Your task to perform on an android device: set default search engine in the chrome app Image 0: 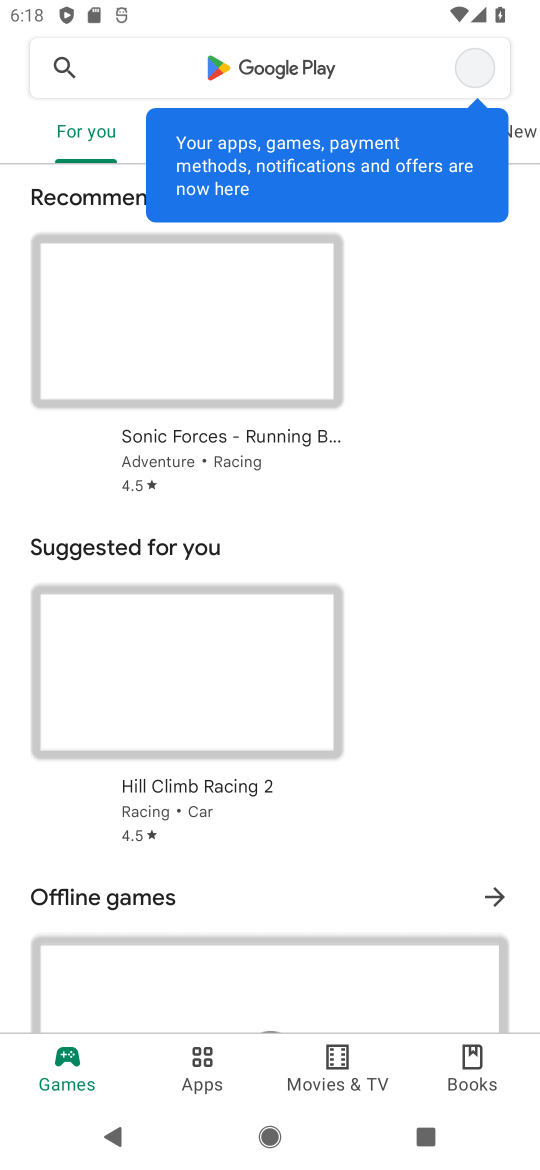
Step 0: press home button
Your task to perform on an android device: set default search engine in the chrome app Image 1: 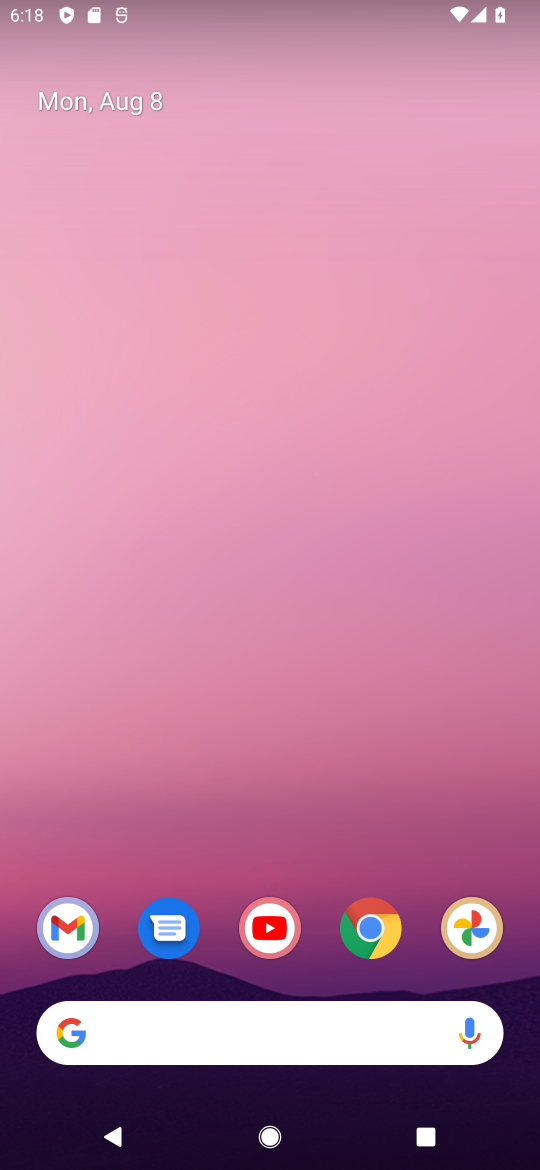
Step 1: click (366, 934)
Your task to perform on an android device: set default search engine in the chrome app Image 2: 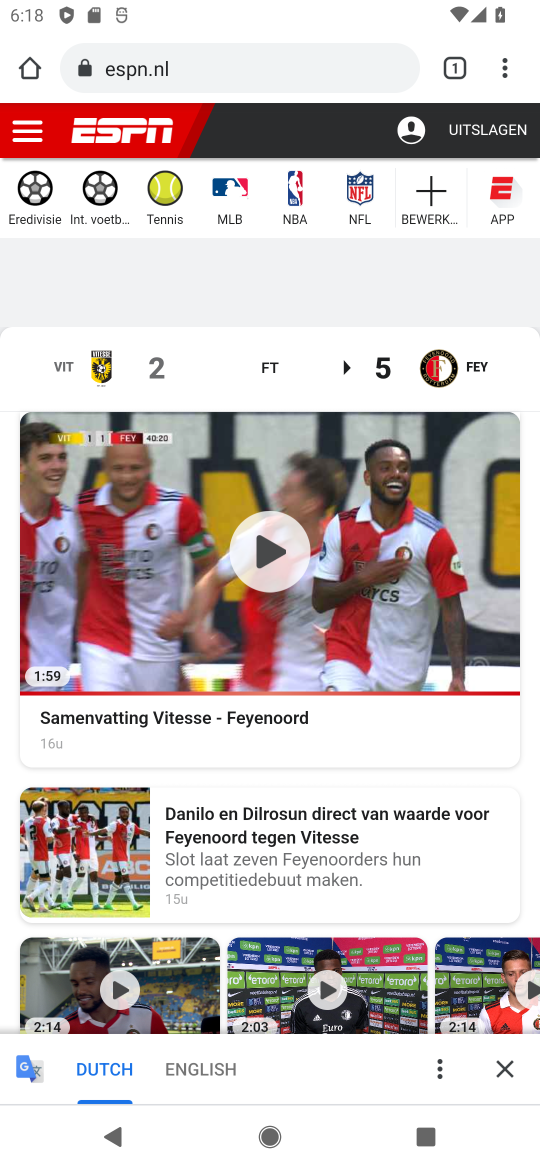
Step 2: click (507, 90)
Your task to perform on an android device: set default search engine in the chrome app Image 3: 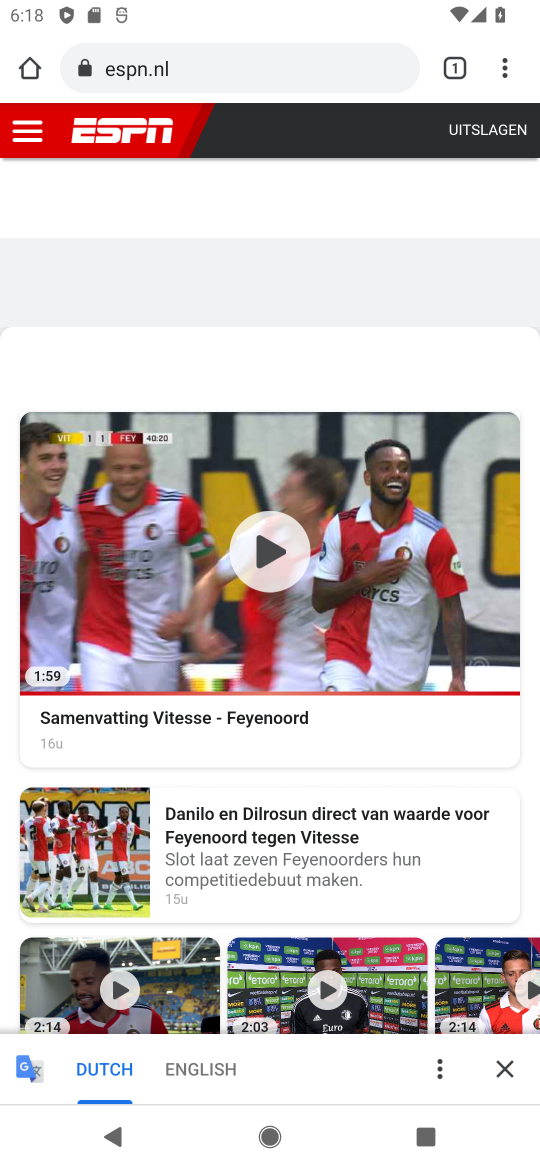
Step 3: click (501, 66)
Your task to perform on an android device: set default search engine in the chrome app Image 4: 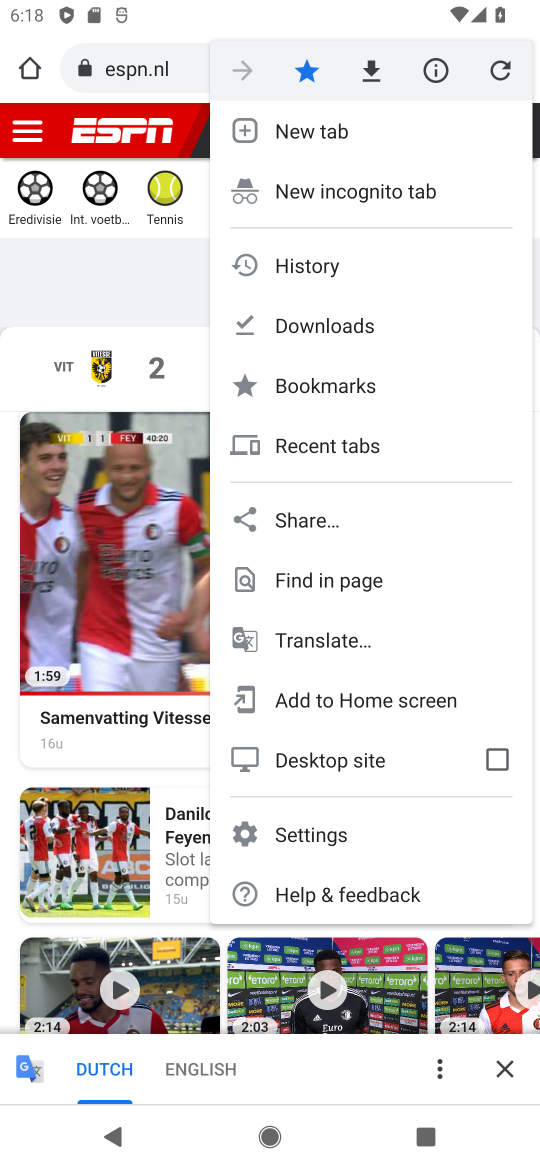
Step 4: click (302, 830)
Your task to perform on an android device: set default search engine in the chrome app Image 5: 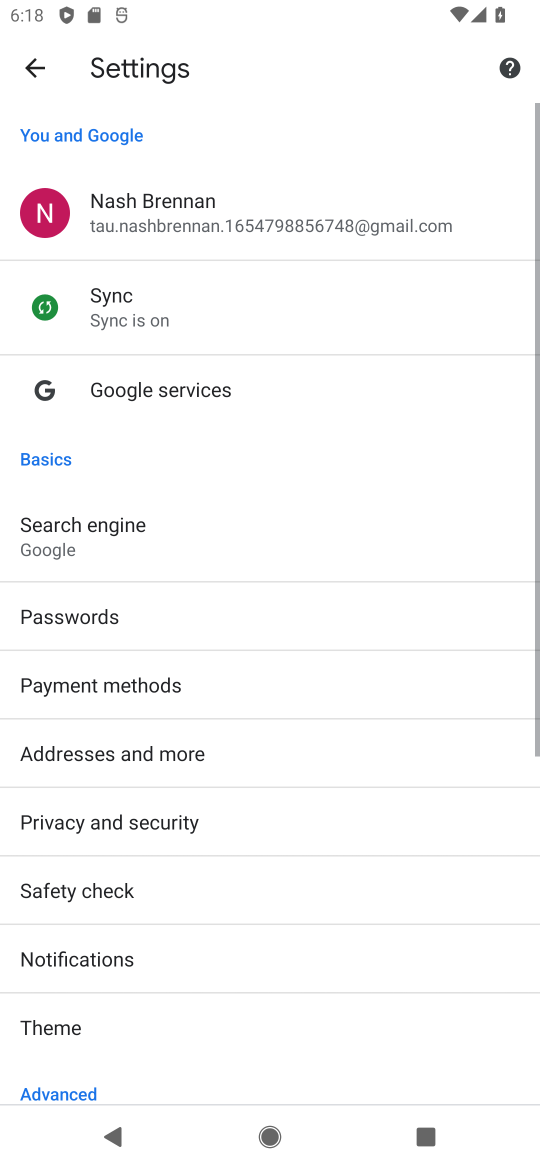
Step 5: drag from (111, 1012) to (110, 793)
Your task to perform on an android device: set default search engine in the chrome app Image 6: 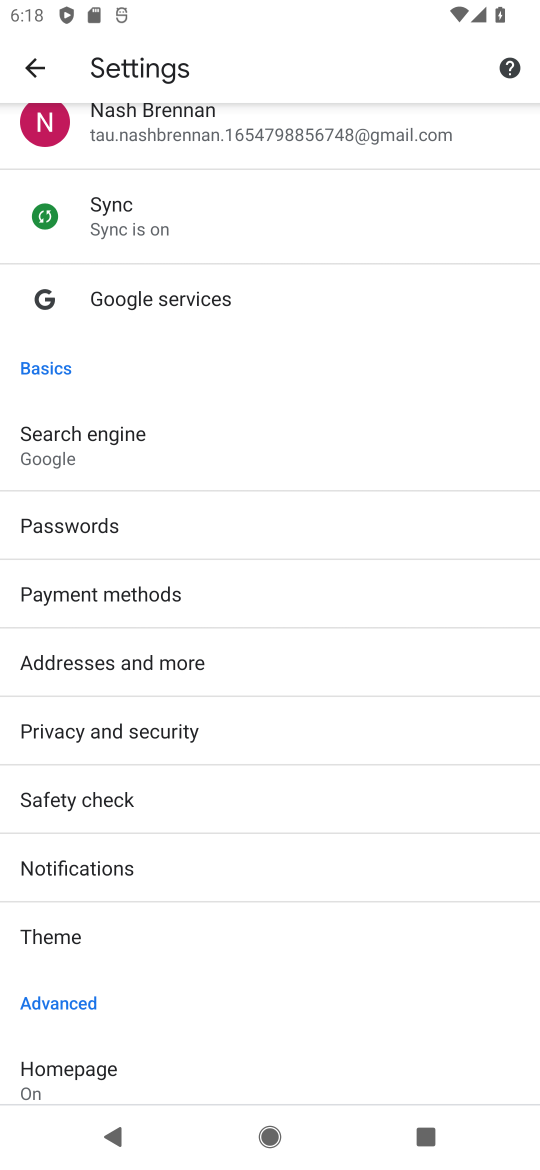
Step 6: drag from (130, 916) to (128, 612)
Your task to perform on an android device: set default search engine in the chrome app Image 7: 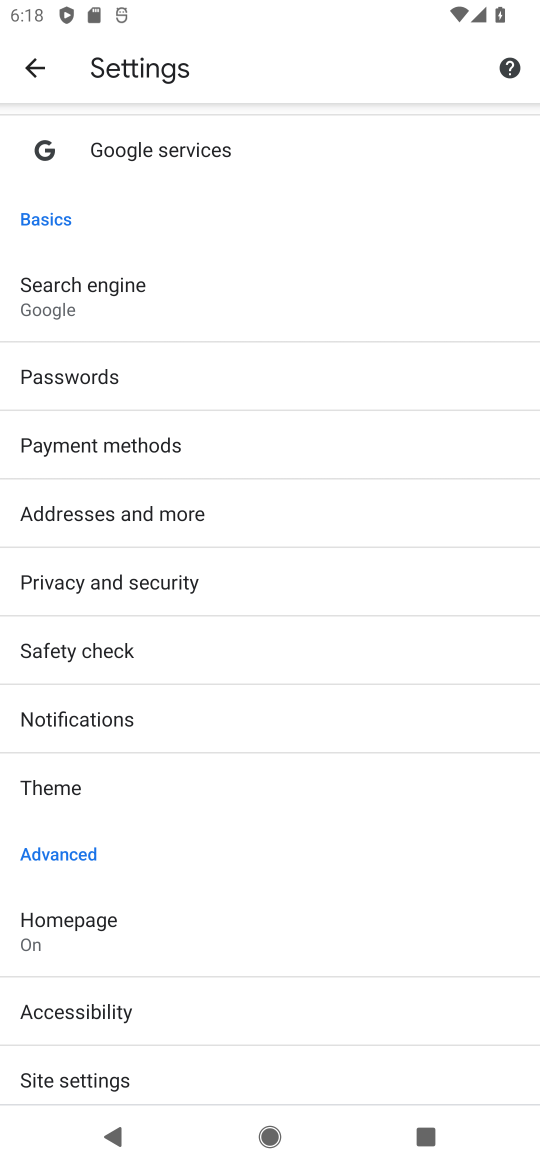
Step 7: drag from (149, 983) to (178, 837)
Your task to perform on an android device: set default search engine in the chrome app Image 8: 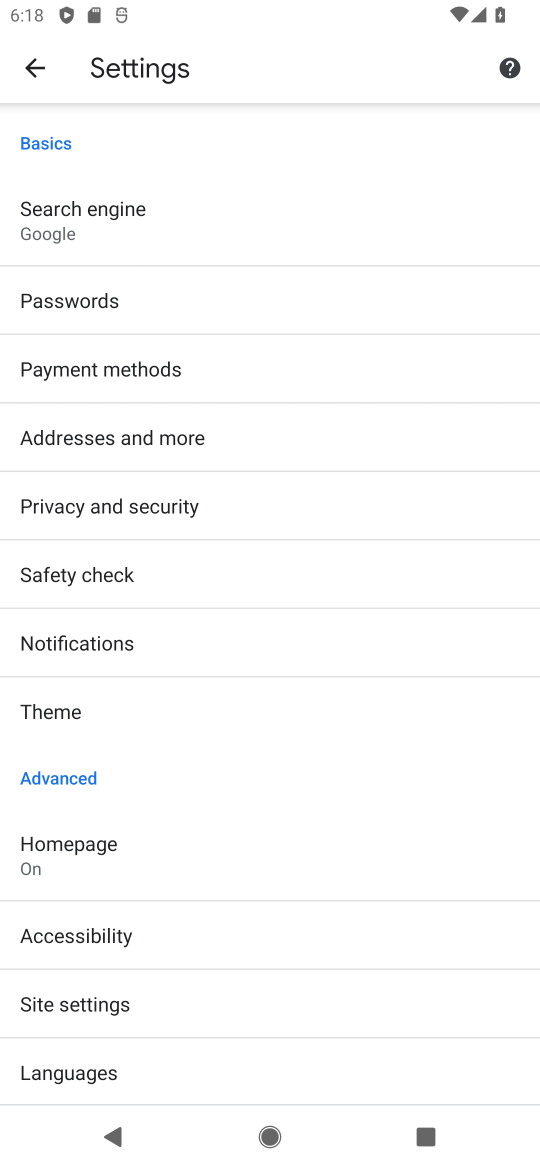
Step 8: click (95, 231)
Your task to perform on an android device: set default search engine in the chrome app Image 9: 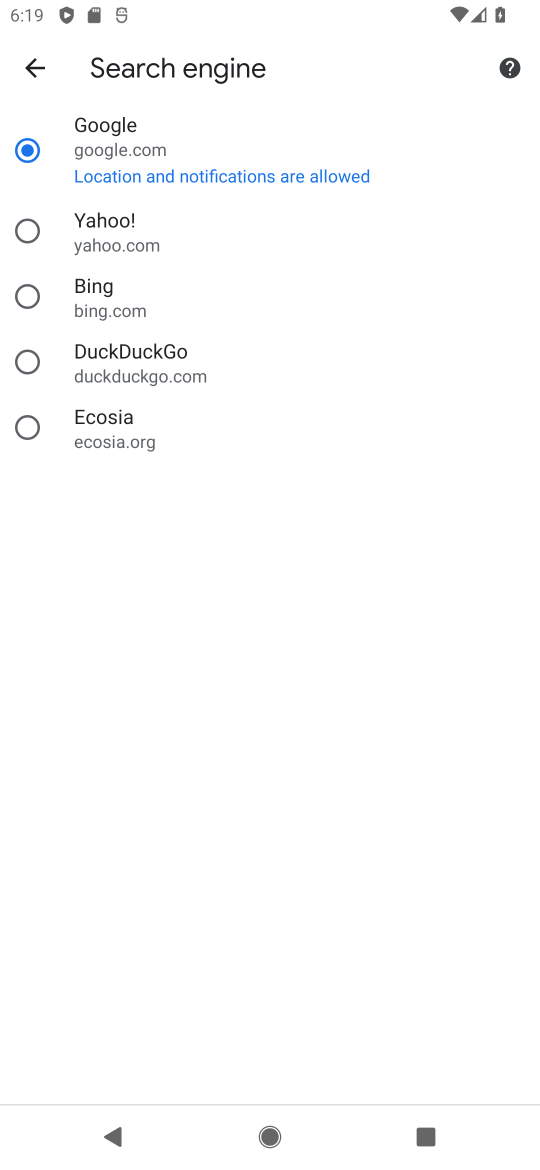
Step 9: task complete